Your task to perform on an android device: turn pop-ups off in chrome Image 0: 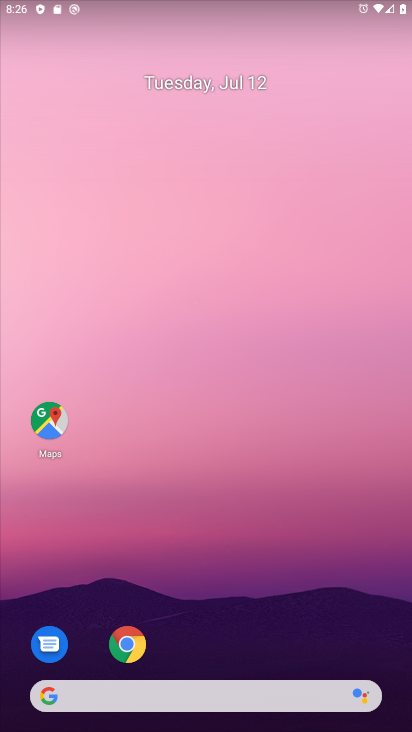
Step 0: click (81, 693)
Your task to perform on an android device: turn pop-ups off in chrome Image 1: 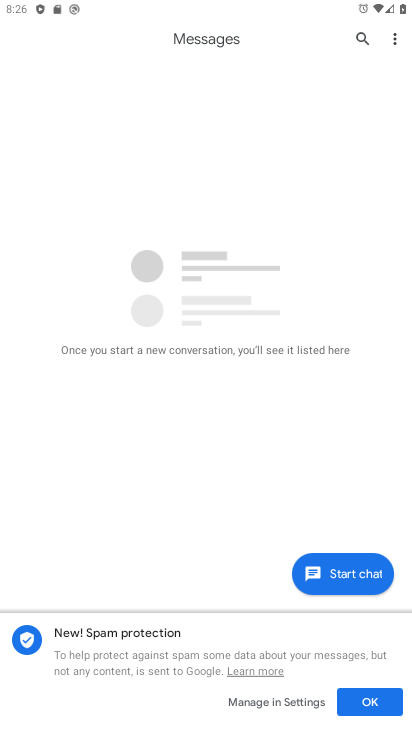
Step 1: press home button
Your task to perform on an android device: turn pop-ups off in chrome Image 2: 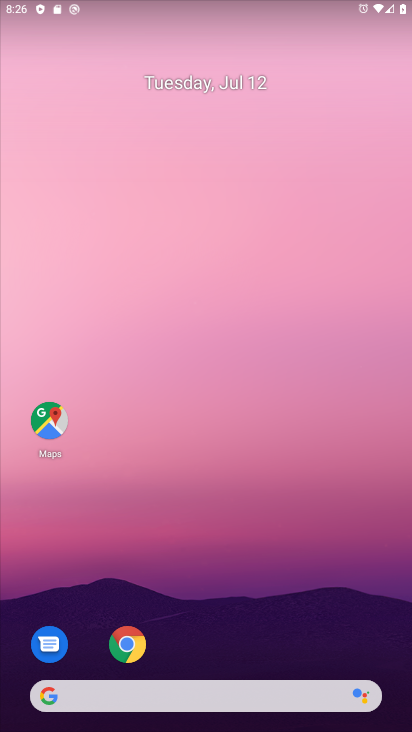
Step 2: click (119, 648)
Your task to perform on an android device: turn pop-ups off in chrome Image 3: 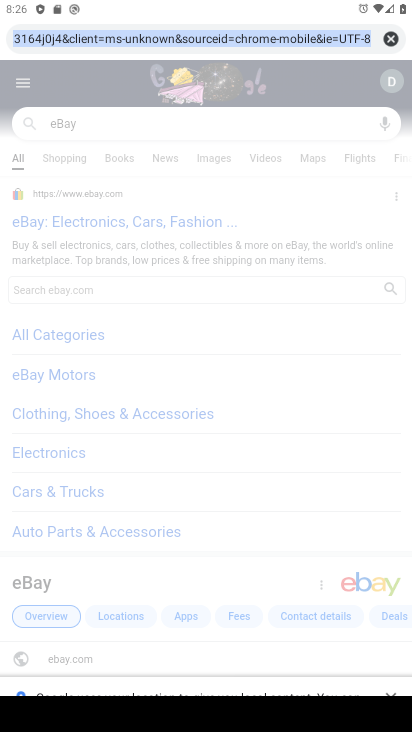
Step 3: click (389, 36)
Your task to perform on an android device: turn pop-ups off in chrome Image 4: 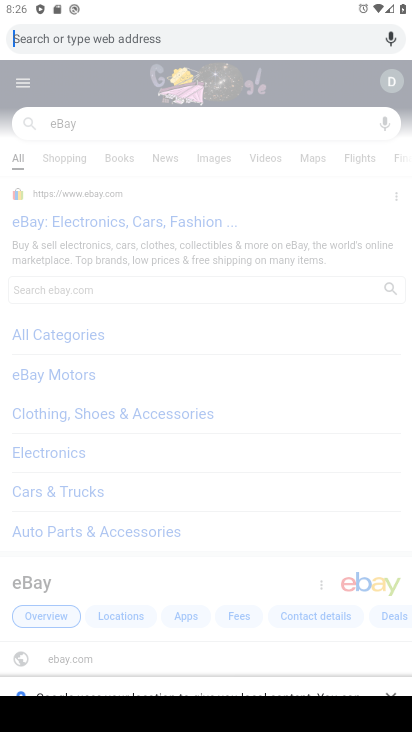
Step 4: click (183, 81)
Your task to perform on an android device: turn pop-ups off in chrome Image 5: 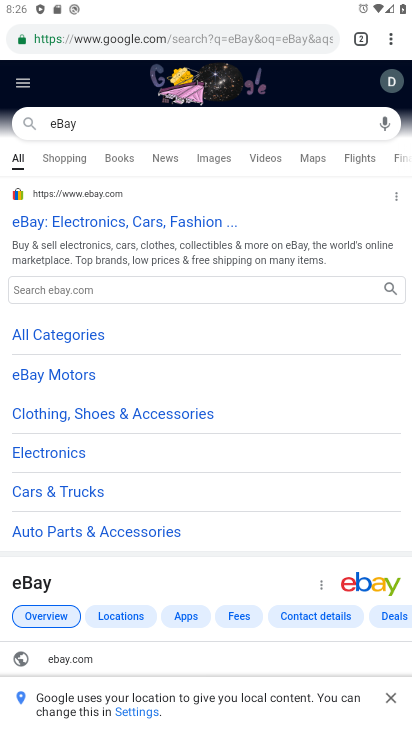
Step 5: click (393, 36)
Your task to perform on an android device: turn pop-ups off in chrome Image 6: 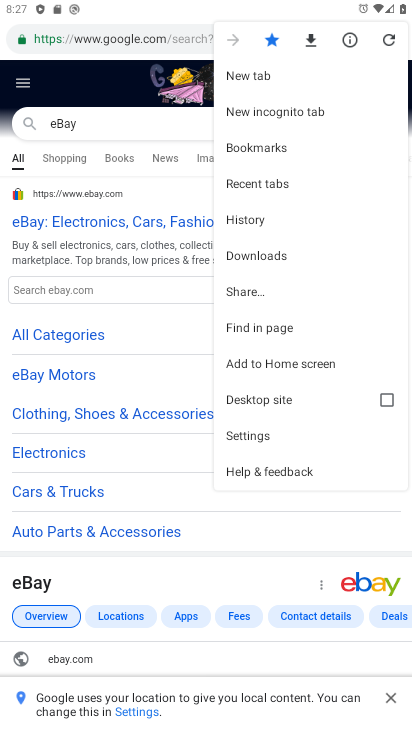
Step 6: click (242, 426)
Your task to perform on an android device: turn pop-ups off in chrome Image 7: 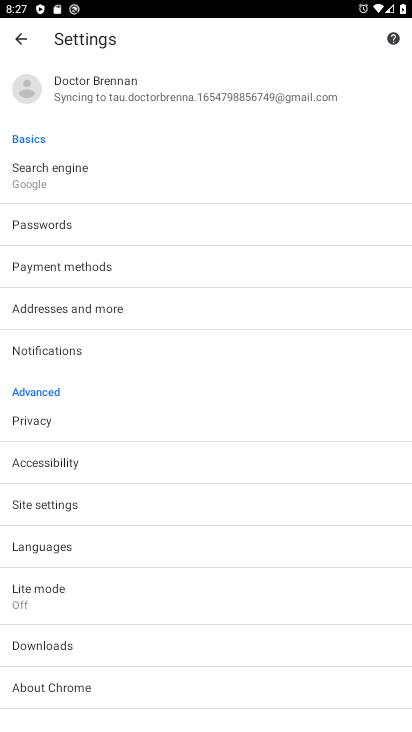
Step 7: click (43, 498)
Your task to perform on an android device: turn pop-ups off in chrome Image 8: 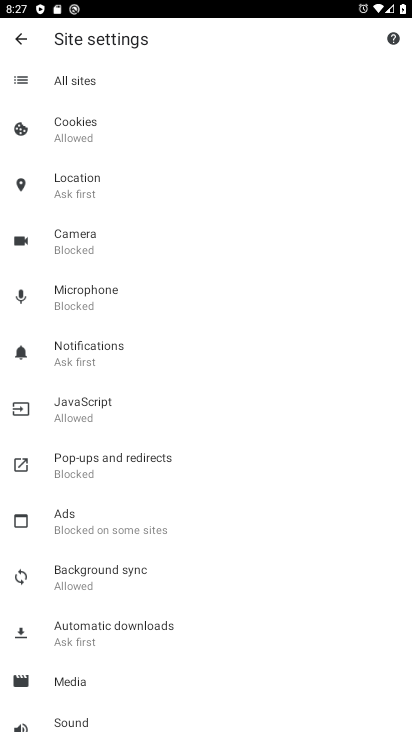
Step 8: click (116, 467)
Your task to perform on an android device: turn pop-ups off in chrome Image 9: 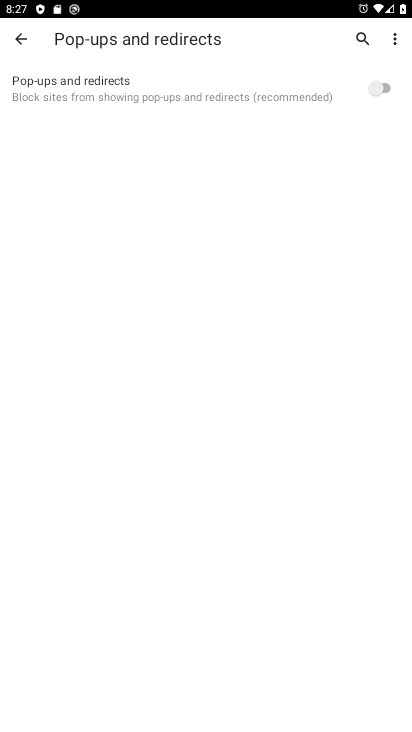
Step 9: click (372, 93)
Your task to perform on an android device: turn pop-ups off in chrome Image 10: 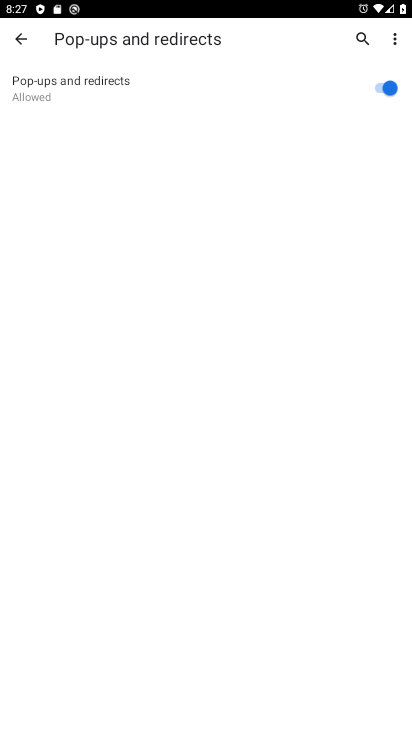
Step 10: click (393, 92)
Your task to perform on an android device: turn pop-ups off in chrome Image 11: 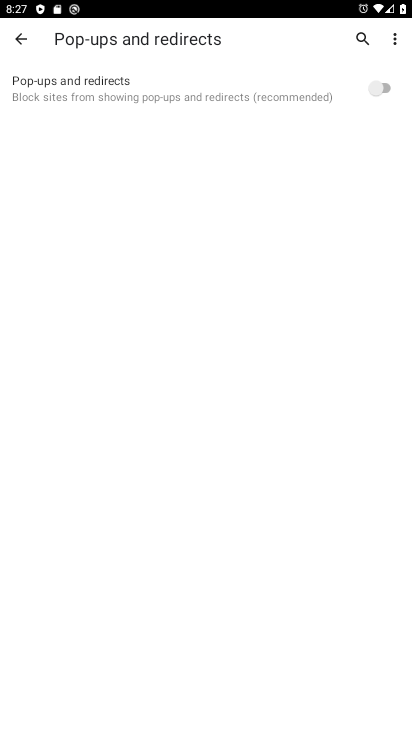
Step 11: task complete